Your task to perform on an android device: change alarm snooze length Image 0: 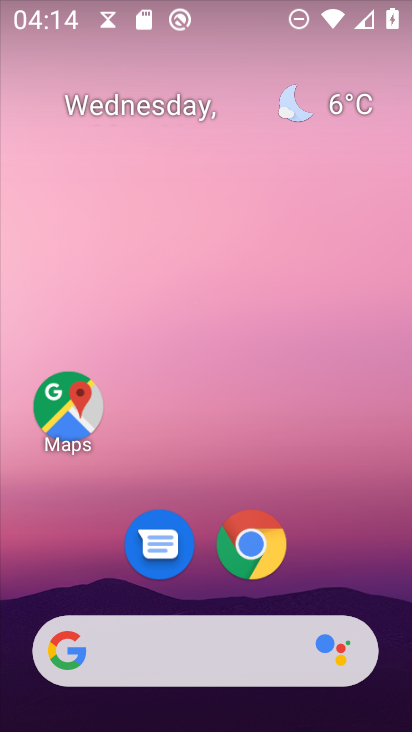
Step 0: drag from (333, 568) to (298, 48)
Your task to perform on an android device: change alarm snooze length Image 1: 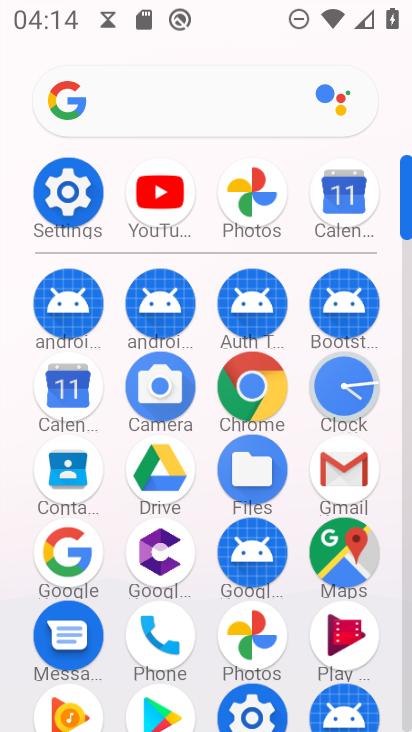
Step 1: click (339, 379)
Your task to perform on an android device: change alarm snooze length Image 2: 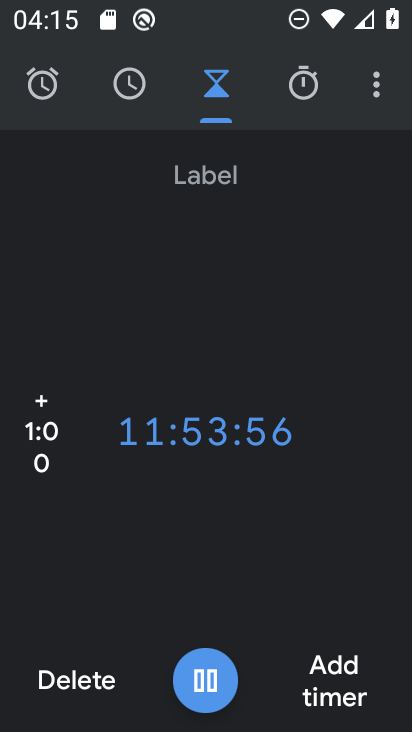
Step 2: click (365, 110)
Your task to perform on an android device: change alarm snooze length Image 3: 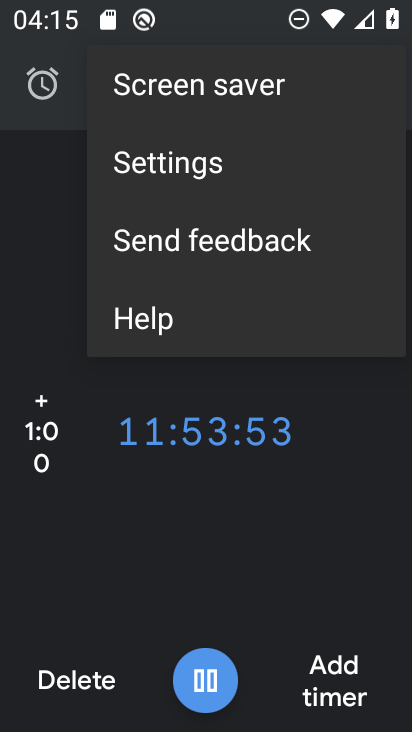
Step 3: click (239, 173)
Your task to perform on an android device: change alarm snooze length Image 4: 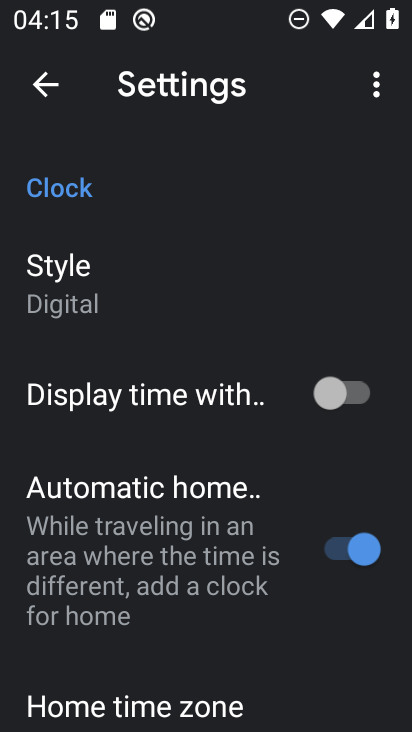
Step 4: drag from (198, 604) to (221, 330)
Your task to perform on an android device: change alarm snooze length Image 5: 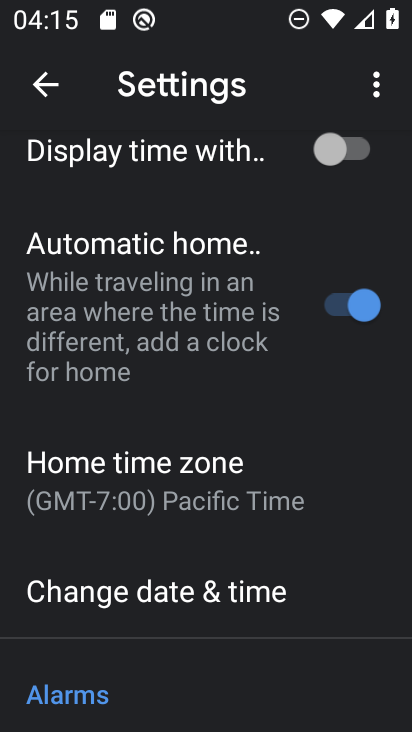
Step 5: drag from (218, 650) to (250, 280)
Your task to perform on an android device: change alarm snooze length Image 6: 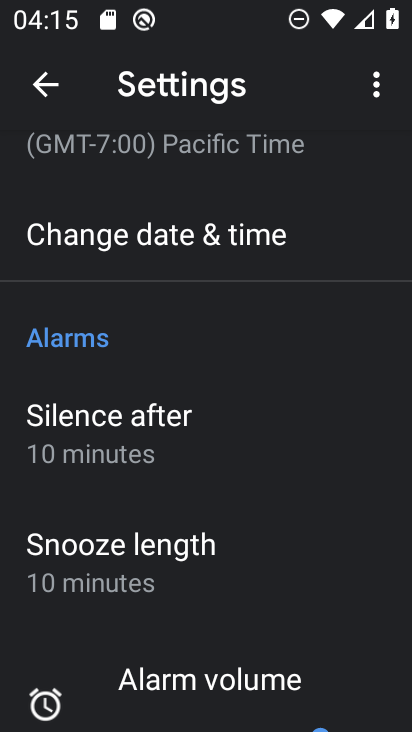
Step 6: click (188, 547)
Your task to perform on an android device: change alarm snooze length Image 7: 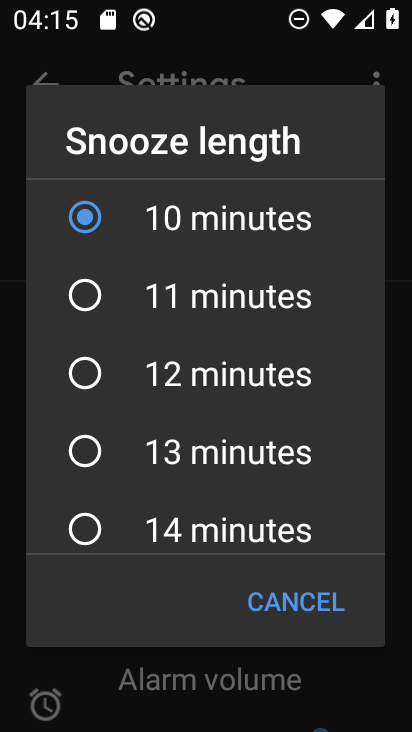
Step 7: click (219, 382)
Your task to perform on an android device: change alarm snooze length Image 8: 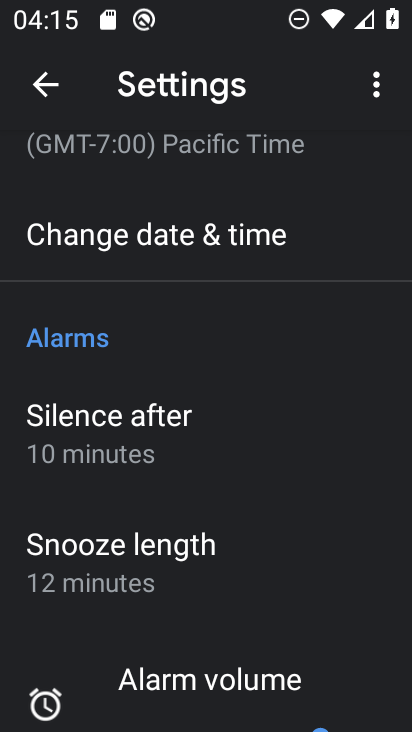
Step 8: task complete